Your task to perform on an android device: Go to internet settings Image 0: 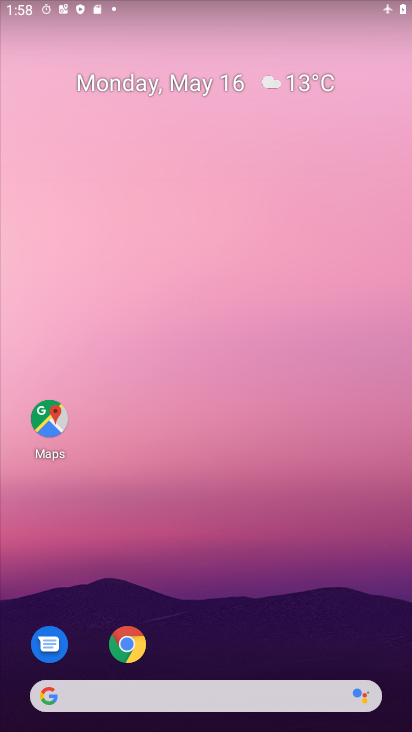
Step 0: drag from (220, 659) to (216, 121)
Your task to perform on an android device: Go to internet settings Image 1: 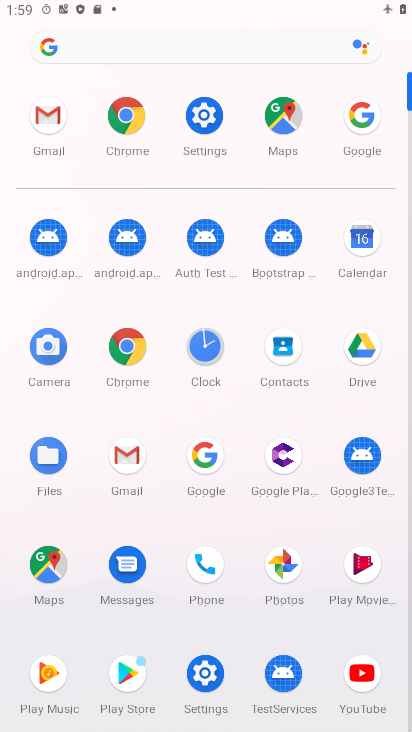
Step 1: click (200, 137)
Your task to perform on an android device: Go to internet settings Image 2: 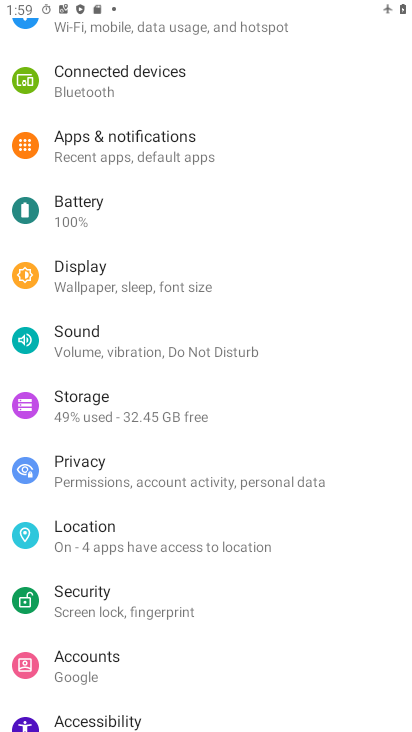
Step 2: drag from (182, 145) to (112, 575)
Your task to perform on an android device: Go to internet settings Image 3: 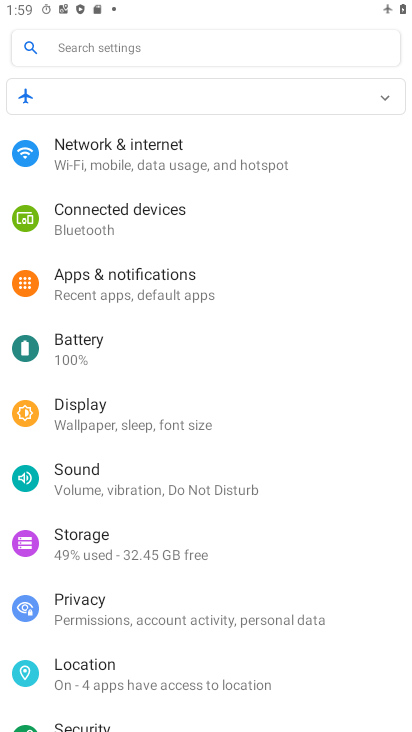
Step 3: click (148, 147)
Your task to perform on an android device: Go to internet settings Image 4: 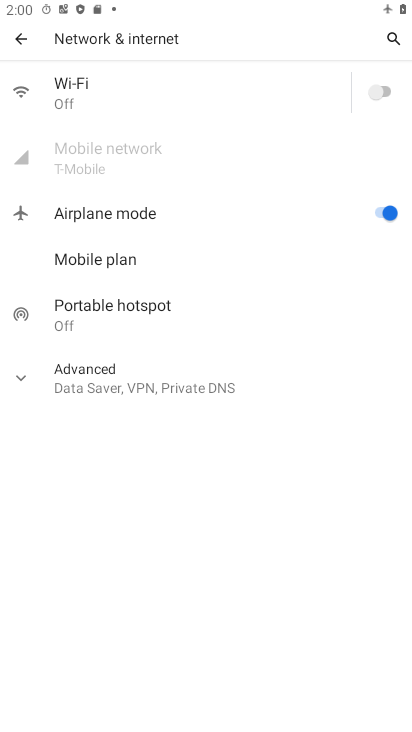
Step 4: click (81, 171)
Your task to perform on an android device: Go to internet settings Image 5: 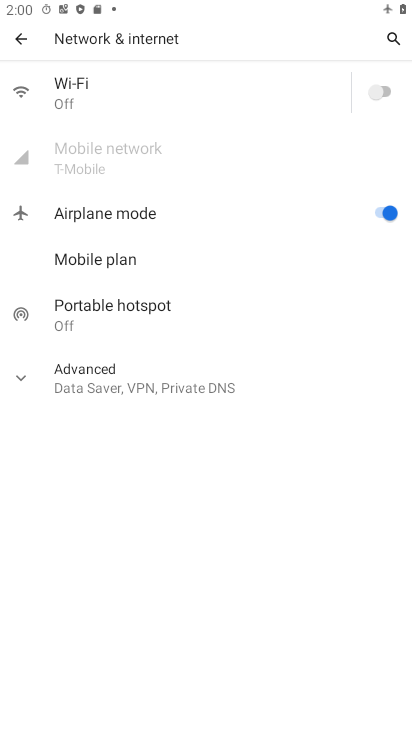
Step 5: task complete